Your task to perform on an android device: Open CNN.com Image 0: 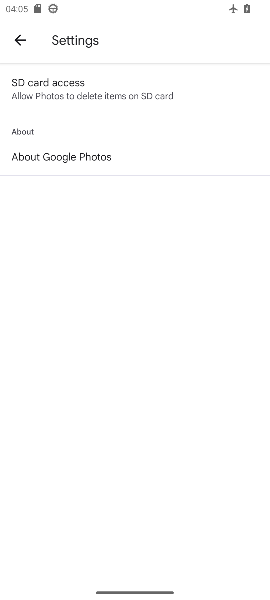
Step 0: press home button
Your task to perform on an android device: Open CNN.com Image 1: 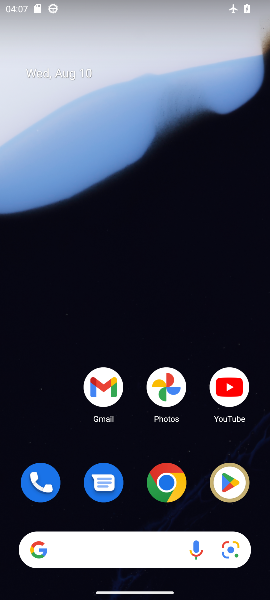
Step 1: click (161, 481)
Your task to perform on an android device: Open CNN.com Image 2: 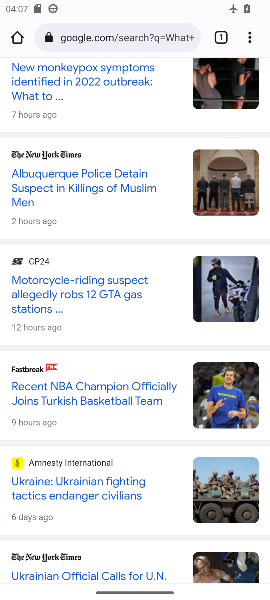
Step 2: click (124, 32)
Your task to perform on an android device: Open CNN.com Image 3: 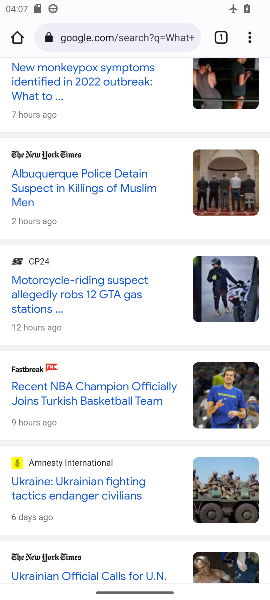
Step 3: click (124, 32)
Your task to perform on an android device: Open CNN.com Image 4: 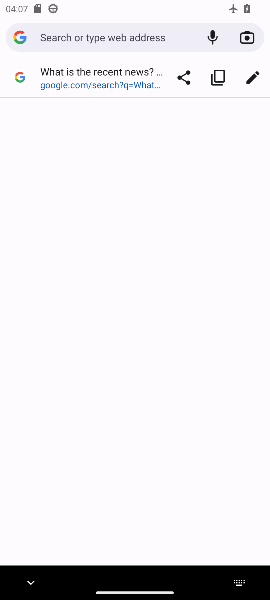
Step 4: type "CNN.com"
Your task to perform on an android device: Open CNN.com Image 5: 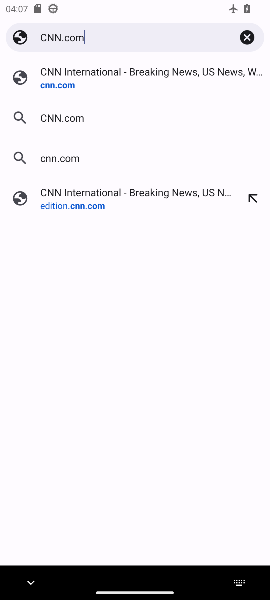
Step 5: click (53, 87)
Your task to perform on an android device: Open CNN.com Image 6: 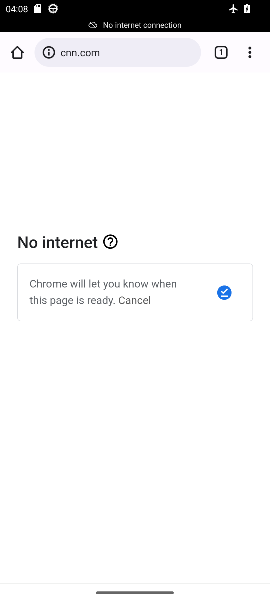
Step 6: drag from (187, 3) to (215, 594)
Your task to perform on an android device: Open CNN.com Image 7: 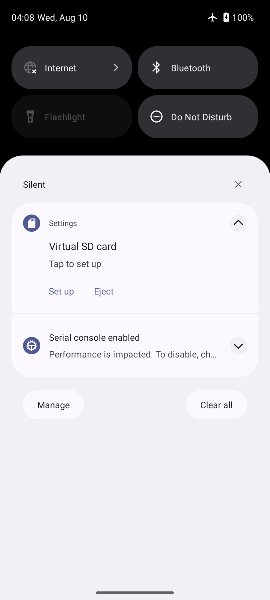
Step 7: drag from (157, 129) to (171, 451)
Your task to perform on an android device: Open CNN.com Image 8: 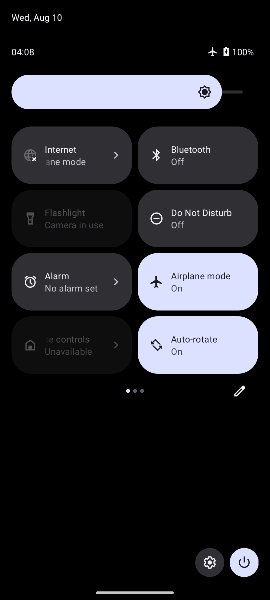
Step 8: click (190, 287)
Your task to perform on an android device: Open CNN.com Image 9: 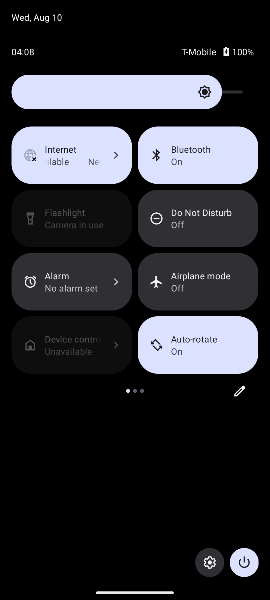
Step 9: task complete